Your task to perform on an android device: toggle sleep mode Image 0: 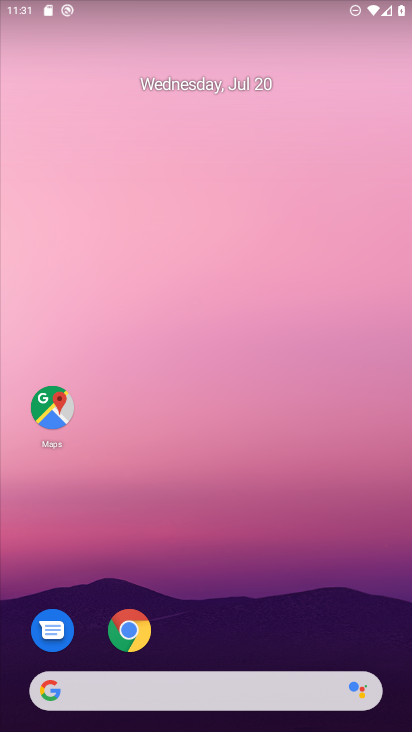
Step 0: drag from (278, 697) to (261, 160)
Your task to perform on an android device: toggle sleep mode Image 1: 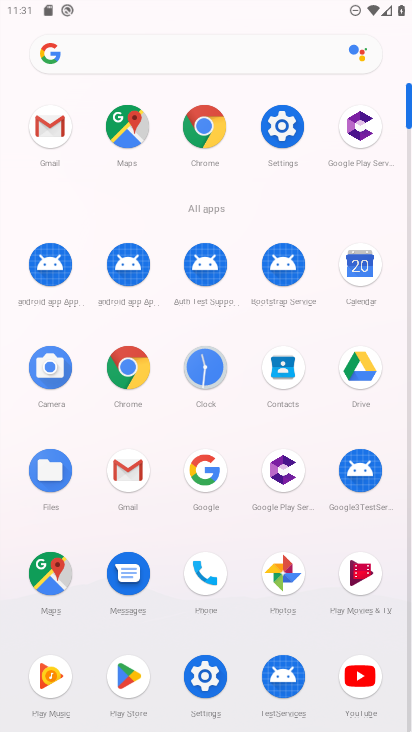
Step 1: click (290, 128)
Your task to perform on an android device: toggle sleep mode Image 2: 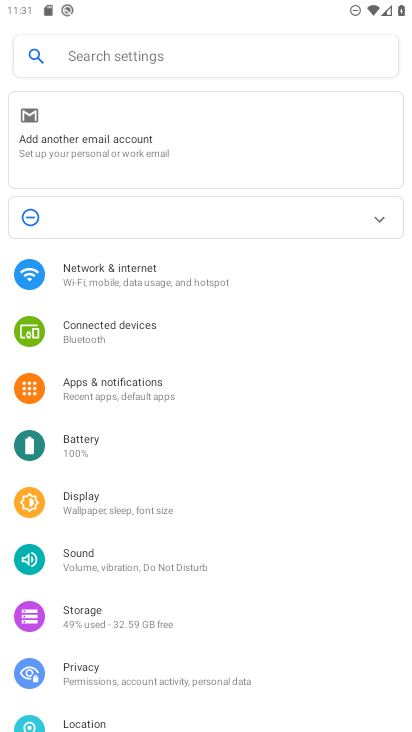
Step 2: click (128, 43)
Your task to perform on an android device: toggle sleep mode Image 3: 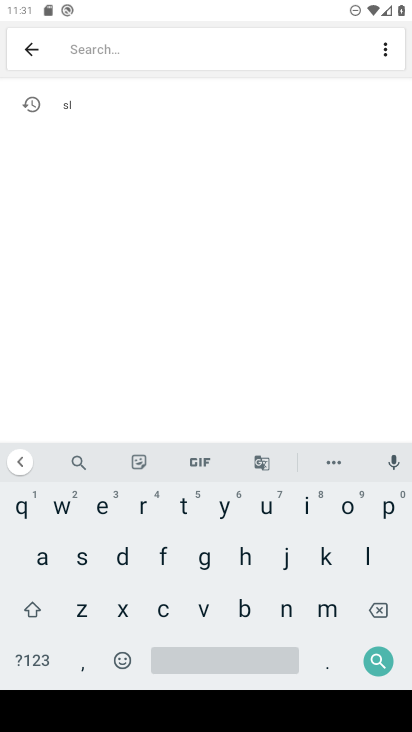
Step 3: click (75, 570)
Your task to perform on an android device: toggle sleep mode Image 4: 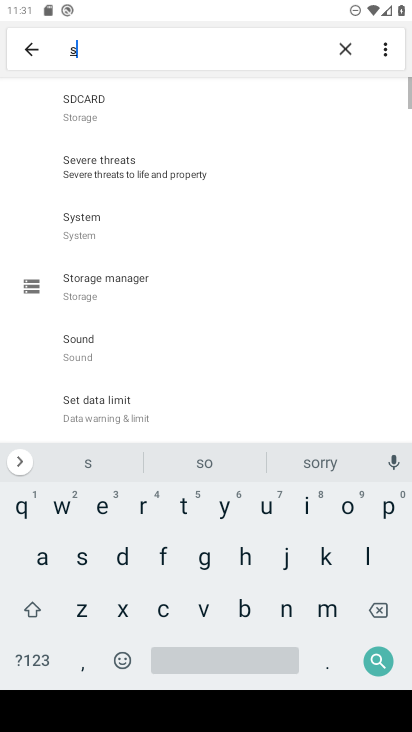
Step 4: click (370, 559)
Your task to perform on an android device: toggle sleep mode Image 5: 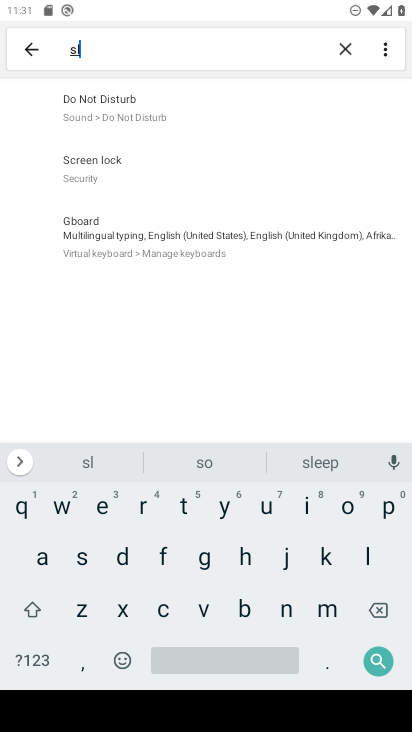
Step 5: click (130, 109)
Your task to perform on an android device: toggle sleep mode Image 6: 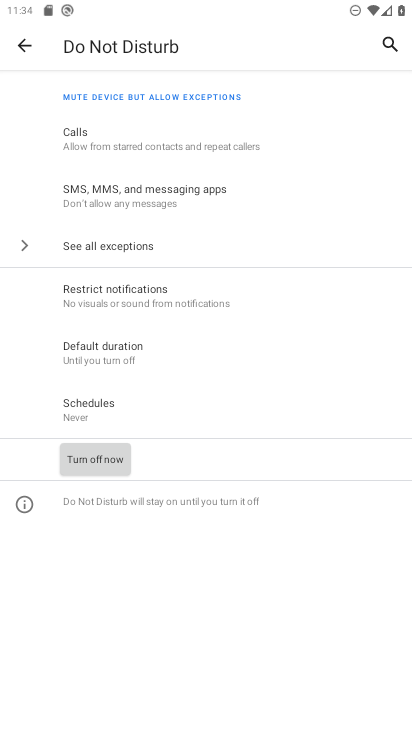
Step 6: task complete